Your task to perform on an android device: Go to battery settings Image 0: 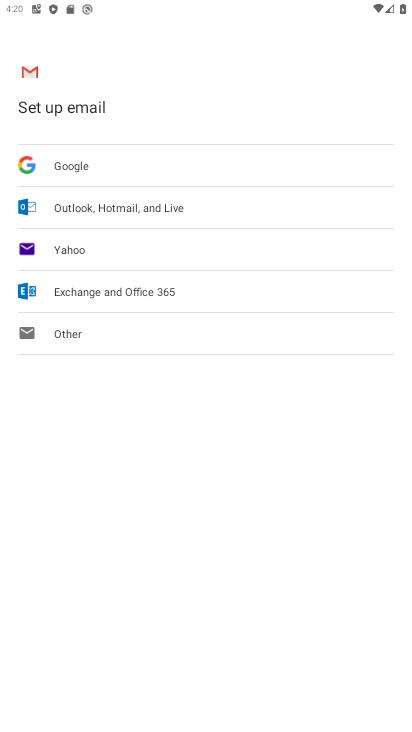
Step 0: press home button
Your task to perform on an android device: Go to battery settings Image 1: 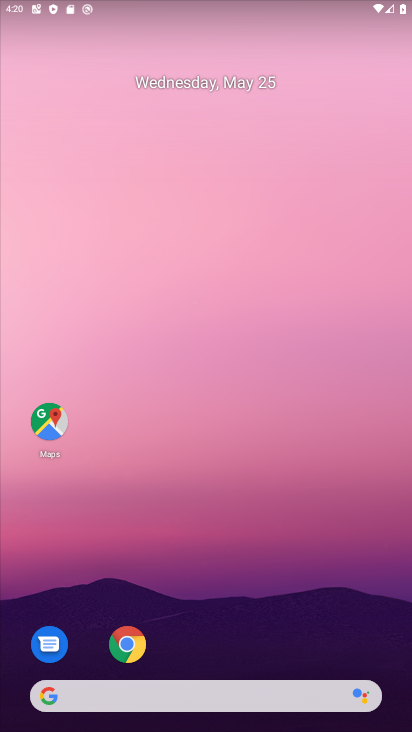
Step 1: drag from (243, 668) to (266, 27)
Your task to perform on an android device: Go to battery settings Image 2: 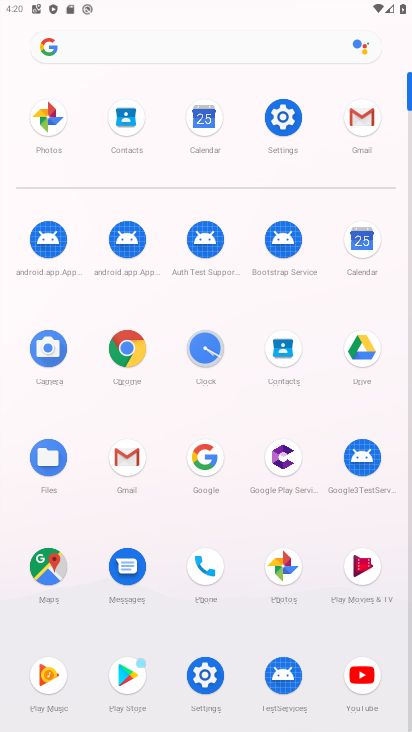
Step 2: click (278, 122)
Your task to perform on an android device: Go to battery settings Image 3: 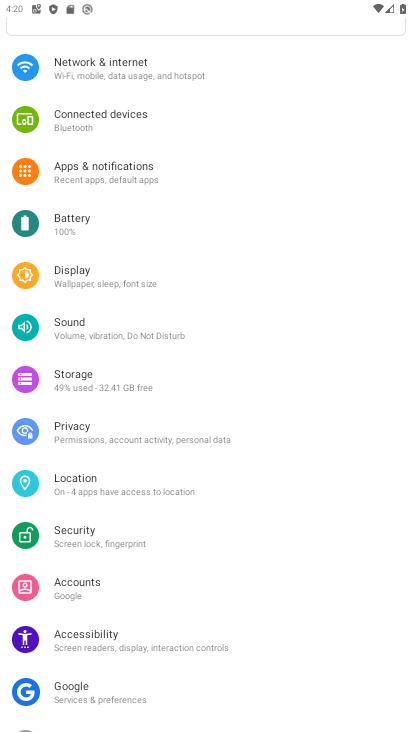
Step 3: click (70, 226)
Your task to perform on an android device: Go to battery settings Image 4: 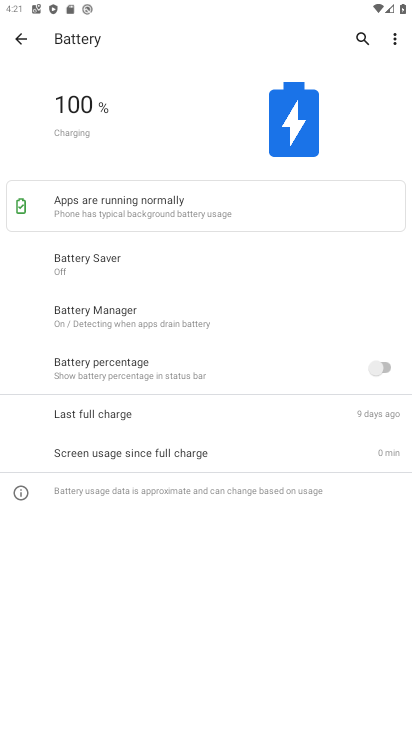
Step 4: task complete